Your task to perform on an android device: search for outdoor chairs on article.com Image 0: 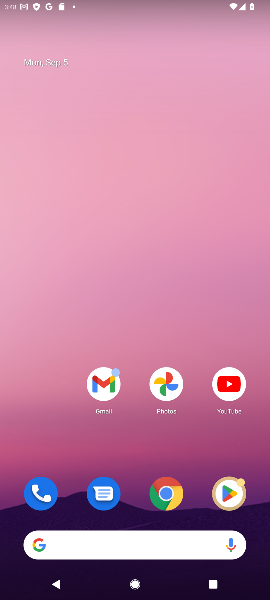
Step 0: drag from (194, 450) to (133, 67)
Your task to perform on an android device: search for outdoor chairs on article.com Image 1: 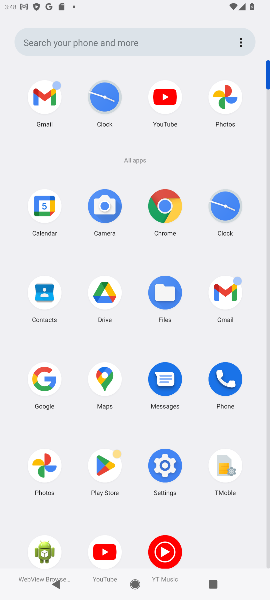
Step 1: click (157, 199)
Your task to perform on an android device: search for outdoor chairs on article.com Image 2: 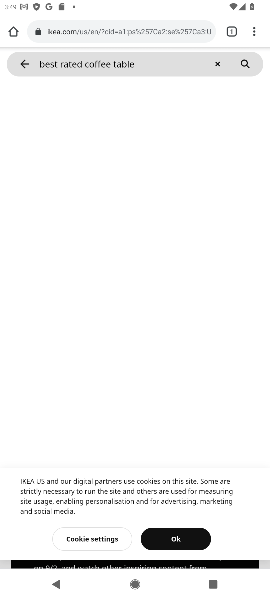
Step 2: click (49, 61)
Your task to perform on an android device: search for outdoor chairs on article.com Image 3: 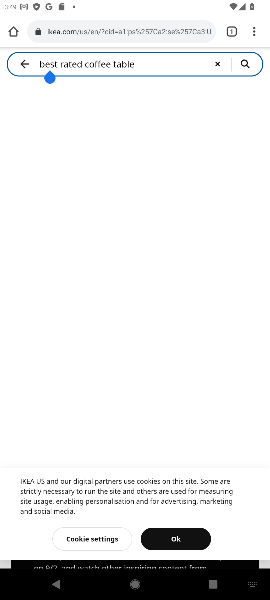
Step 3: click (168, 26)
Your task to perform on an android device: search for outdoor chairs on article.com Image 4: 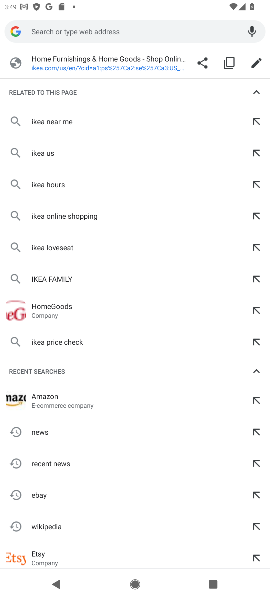
Step 4: type "article.com"
Your task to perform on an android device: search for outdoor chairs on article.com Image 5: 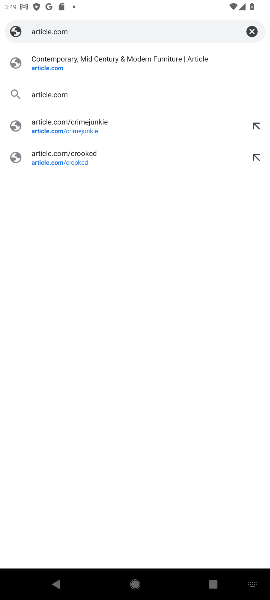
Step 5: click (44, 65)
Your task to perform on an android device: search for outdoor chairs on article.com Image 6: 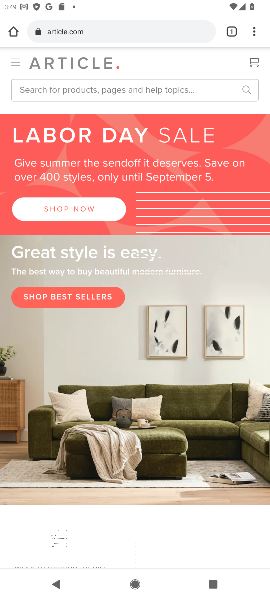
Step 6: click (85, 86)
Your task to perform on an android device: search for outdoor chairs on article.com Image 7: 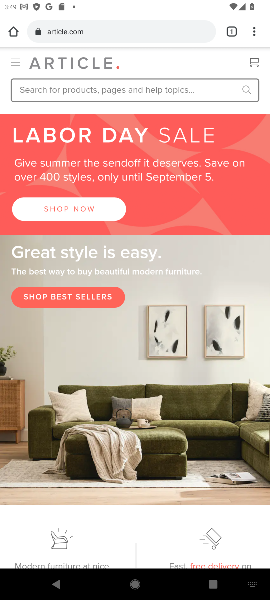
Step 7: click (44, 87)
Your task to perform on an android device: search for outdoor chairs on article.com Image 8: 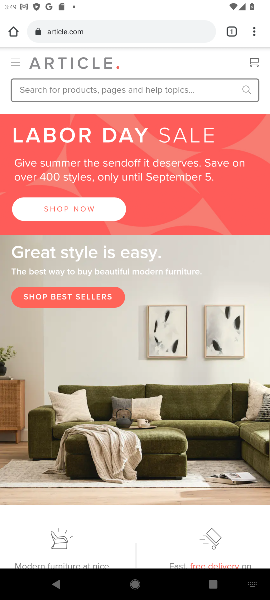
Step 8: click (44, 87)
Your task to perform on an android device: search for outdoor chairs on article.com Image 9: 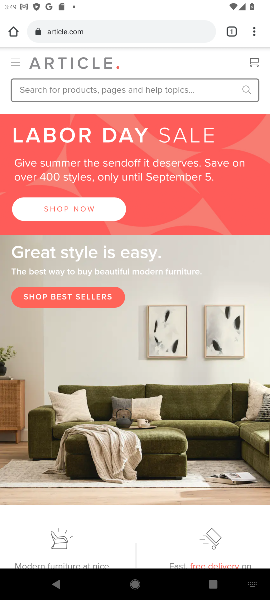
Step 9: click (73, 89)
Your task to perform on an android device: search for outdoor chairs on article.com Image 10: 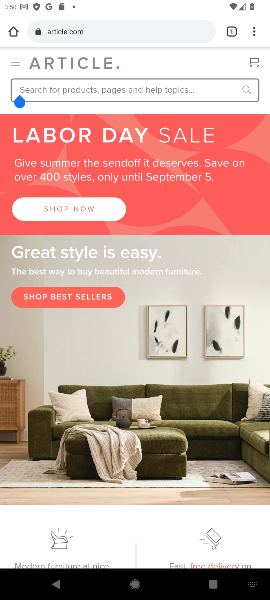
Step 10: type " outdoor chairs"
Your task to perform on an android device: search for outdoor chairs on article.com Image 11: 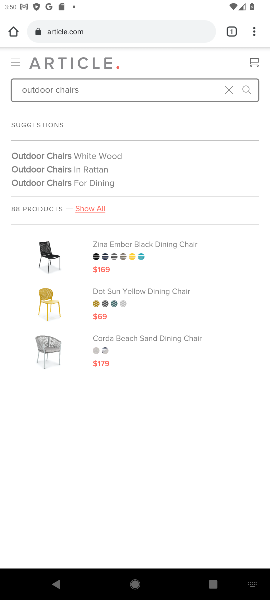
Step 11: task complete